Your task to perform on an android device: Open the Play Movies app and select the watchlist tab. Image 0: 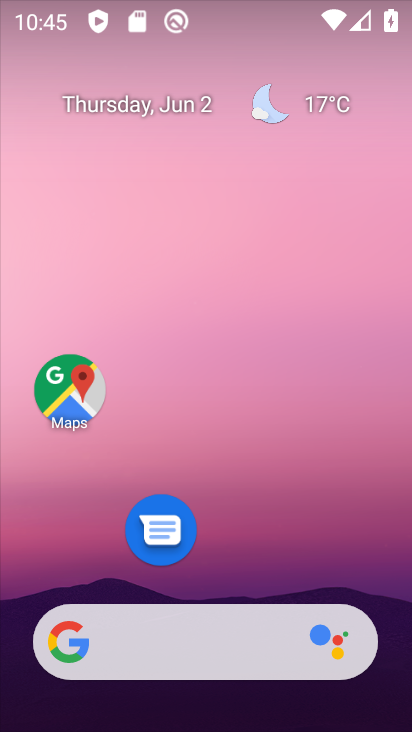
Step 0: drag from (315, 501) to (291, 298)
Your task to perform on an android device: Open the Play Movies app and select the watchlist tab. Image 1: 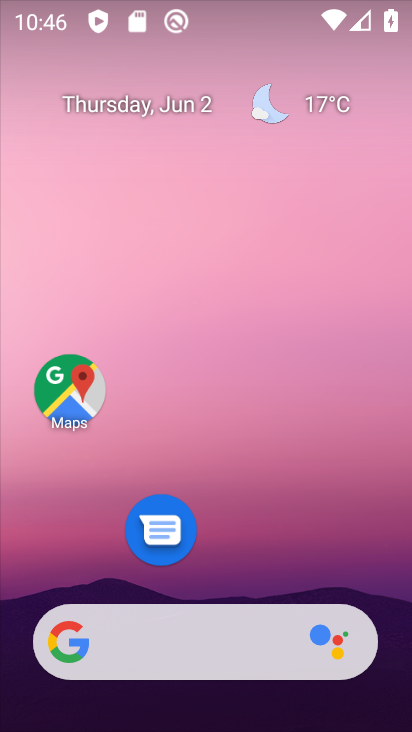
Step 1: drag from (274, 696) to (172, 258)
Your task to perform on an android device: Open the Play Movies app and select the watchlist tab. Image 2: 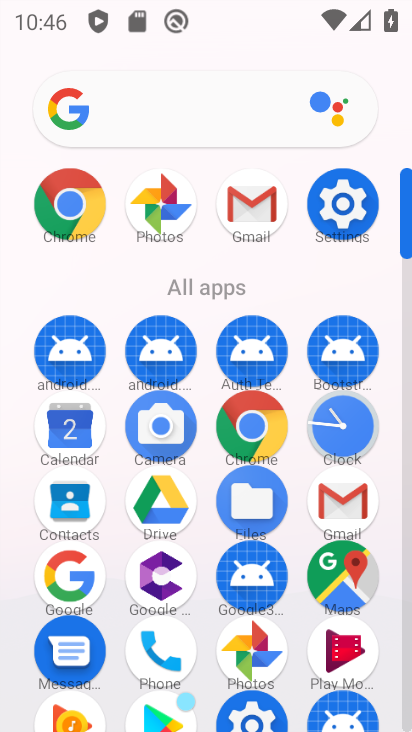
Step 2: drag from (203, 298) to (203, 201)
Your task to perform on an android device: Open the Play Movies app and select the watchlist tab. Image 3: 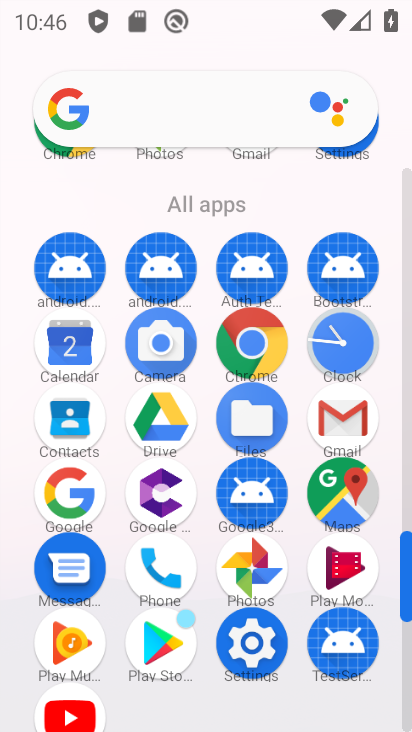
Step 3: click (335, 568)
Your task to perform on an android device: Open the Play Movies app and select the watchlist tab. Image 4: 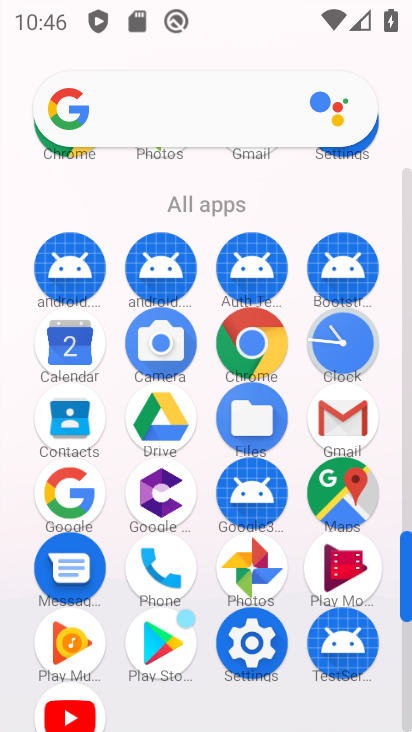
Step 4: click (334, 569)
Your task to perform on an android device: Open the Play Movies app and select the watchlist tab. Image 5: 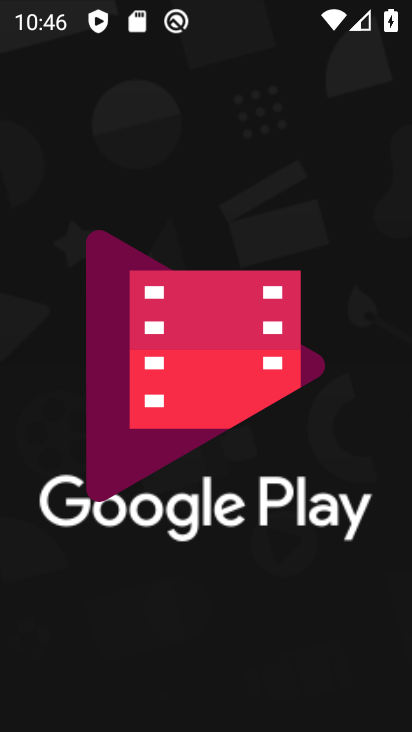
Step 5: drag from (226, 526) to (229, 328)
Your task to perform on an android device: Open the Play Movies app and select the watchlist tab. Image 6: 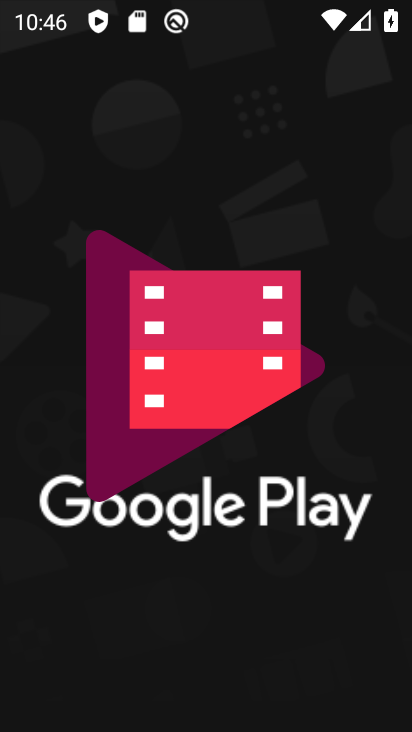
Step 6: drag from (307, 499) to (299, 275)
Your task to perform on an android device: Open the Play Movies app and select the watchlist tab. Image 7: 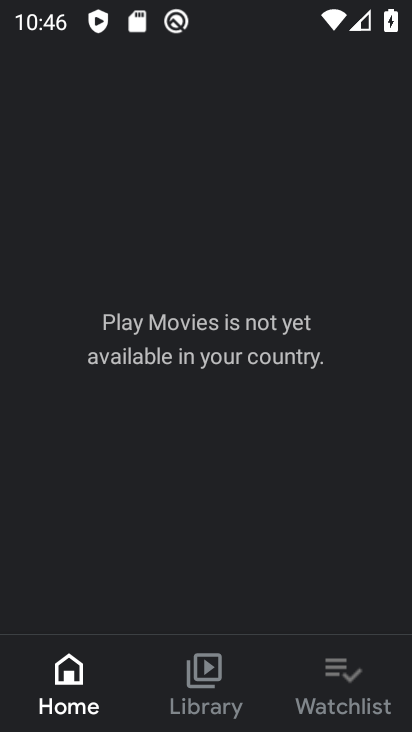
Step 7: click (344, 684)
Your task to perform on an android device: Open the Play Movies app and select the watchlist tab. Image 8: 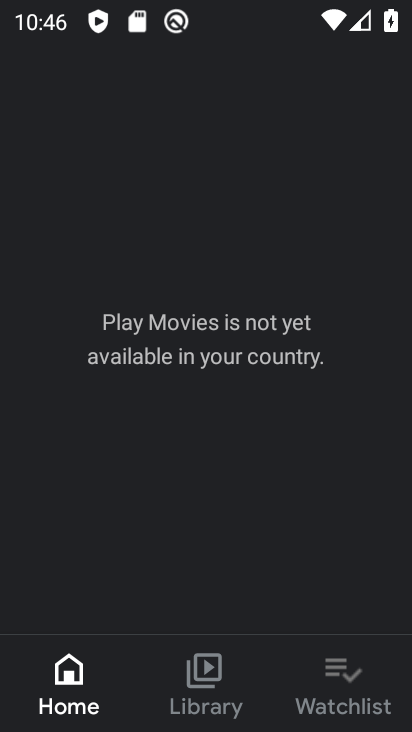
Step 8: click (343, 686)
Your task to perform on an android device: Open the Play Movies app and select the watchlist tab. Image 9: 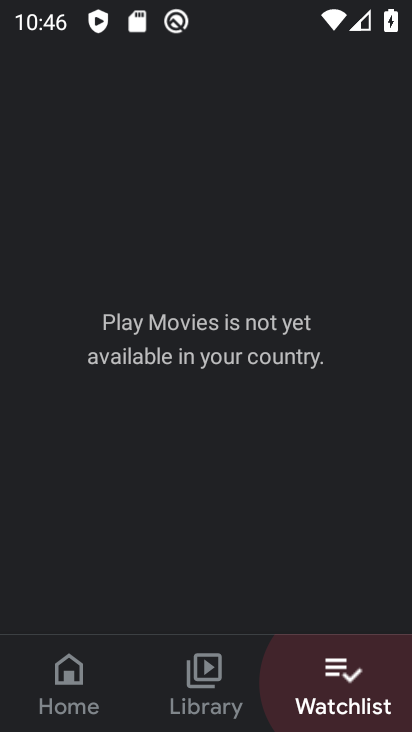
Step 9: click (346, 689)
Your task to perform on an android device: Open the Play Movies app and select the watchlist tab. Image 10: 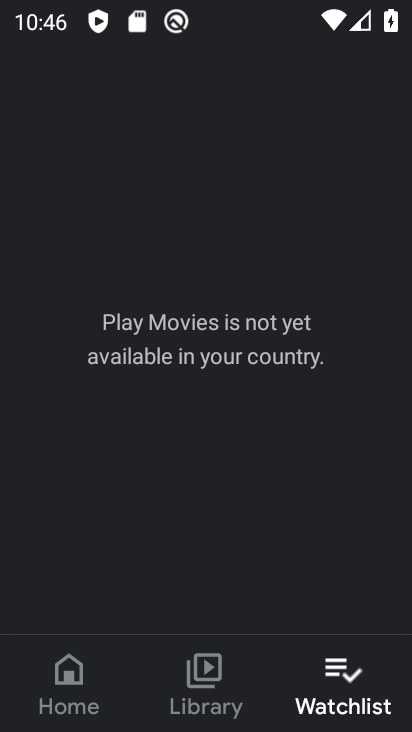
Step 10: task complete